Your task to perform on an android device: Show the shopping cart on amazon.com. Add sony triple a to the cart on amazon.com Image 0: 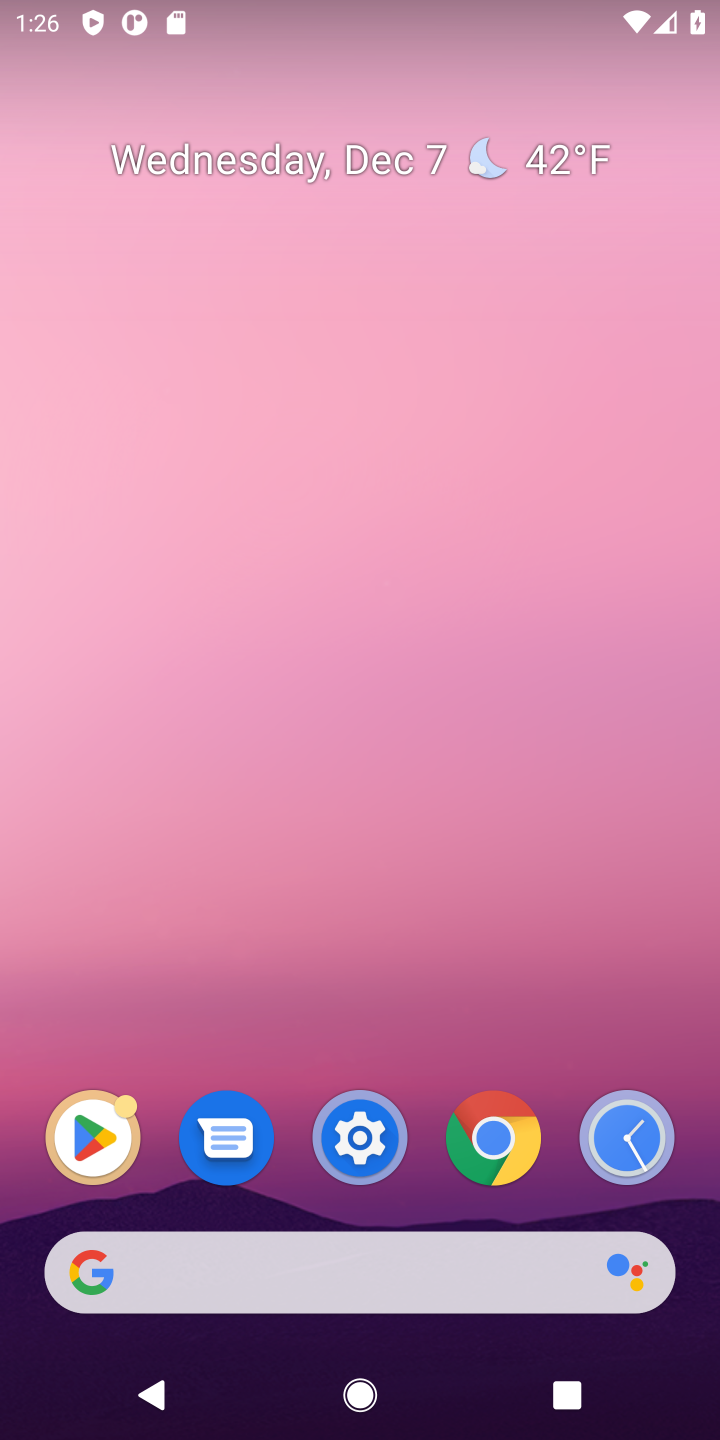
Step 0: click (452, 1279)
Your task to perform on an android device: Show the shopping cart on amazon.com. Add sony triple a to the cart on amazon.com Image 1: 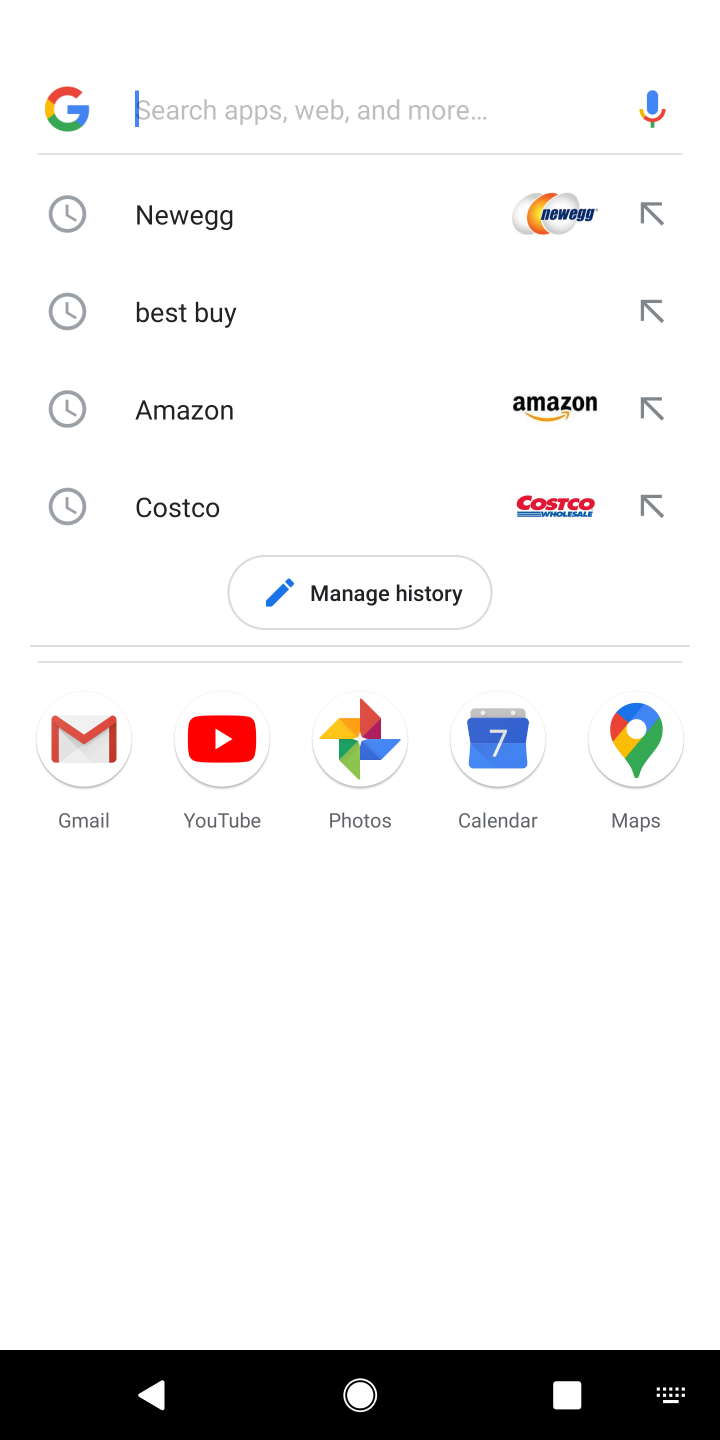
Step 1: click (279, 427)
Your task to perform on an android device: Show the shopping cart on amazon.com. Add sony triple a to the cart on amazon.com Image 2: 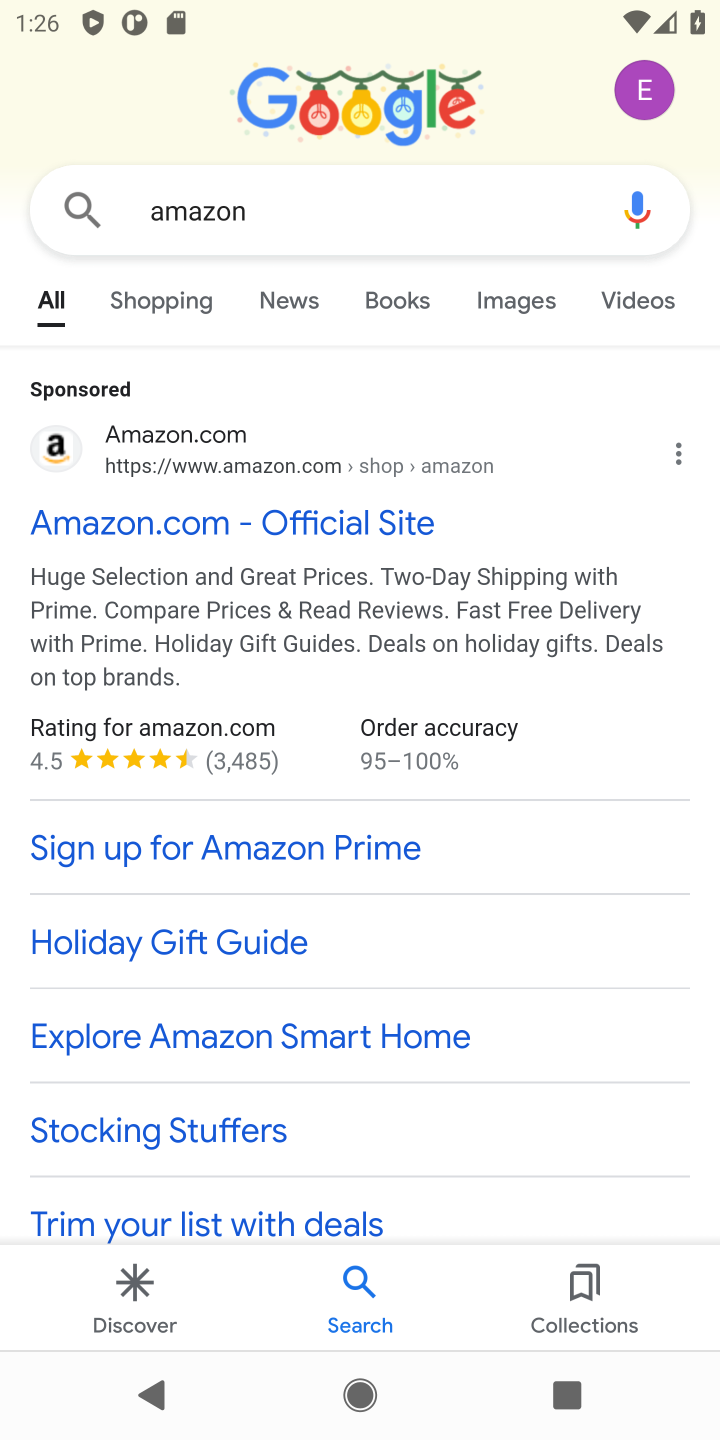
Step 2: click (183, 506)
Your task to perform on an android device: Show the shopping cart on amazon.com. Add sony triple a to the cart on amazon.com Image 3: 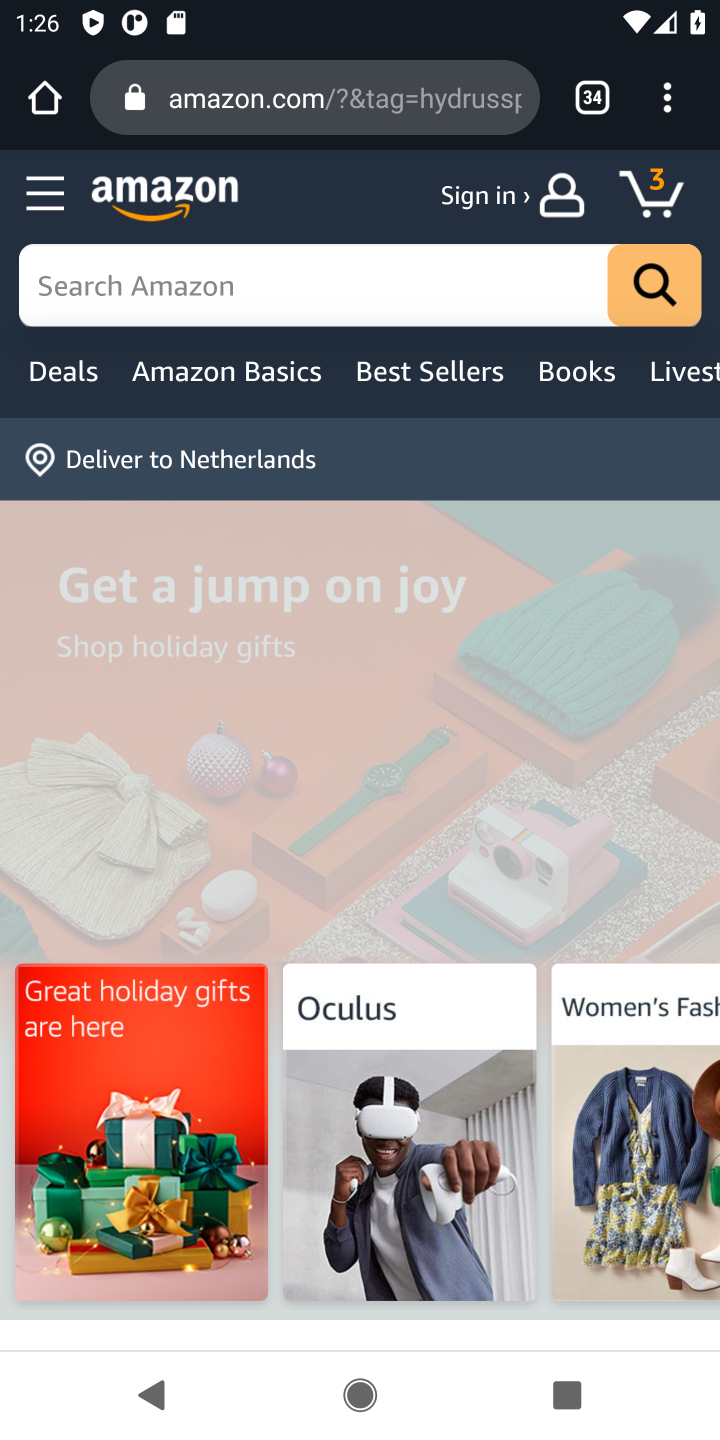
Step 3: click (306, 285)
Your task to perform on an android device: Show the shopping cart on amazon.com. Add sony triple a to the cart on amazon.com Image 4: 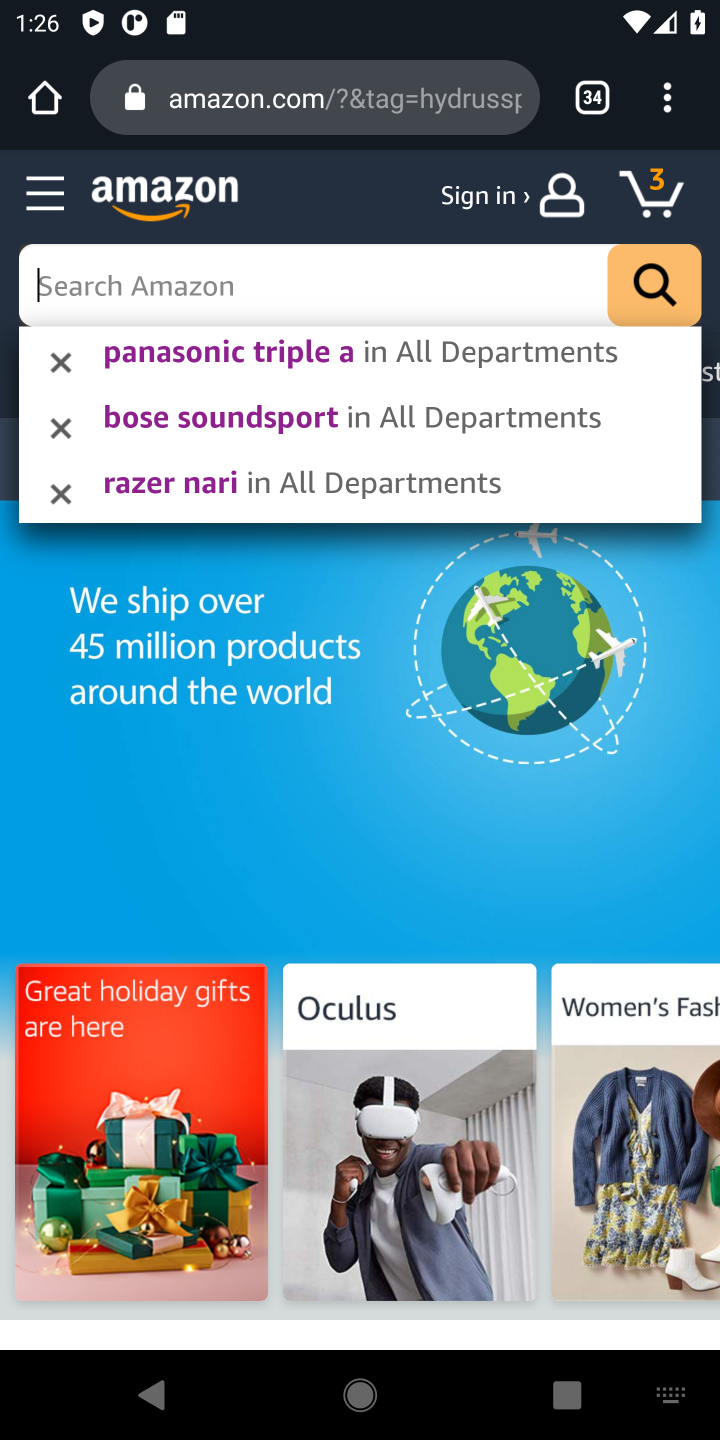
Step 4: type "sony triple"
Your task to perform on an android device: Show the shopping cart on amazon.com. Add sony triple a to the cart on amazon.com Image 5: 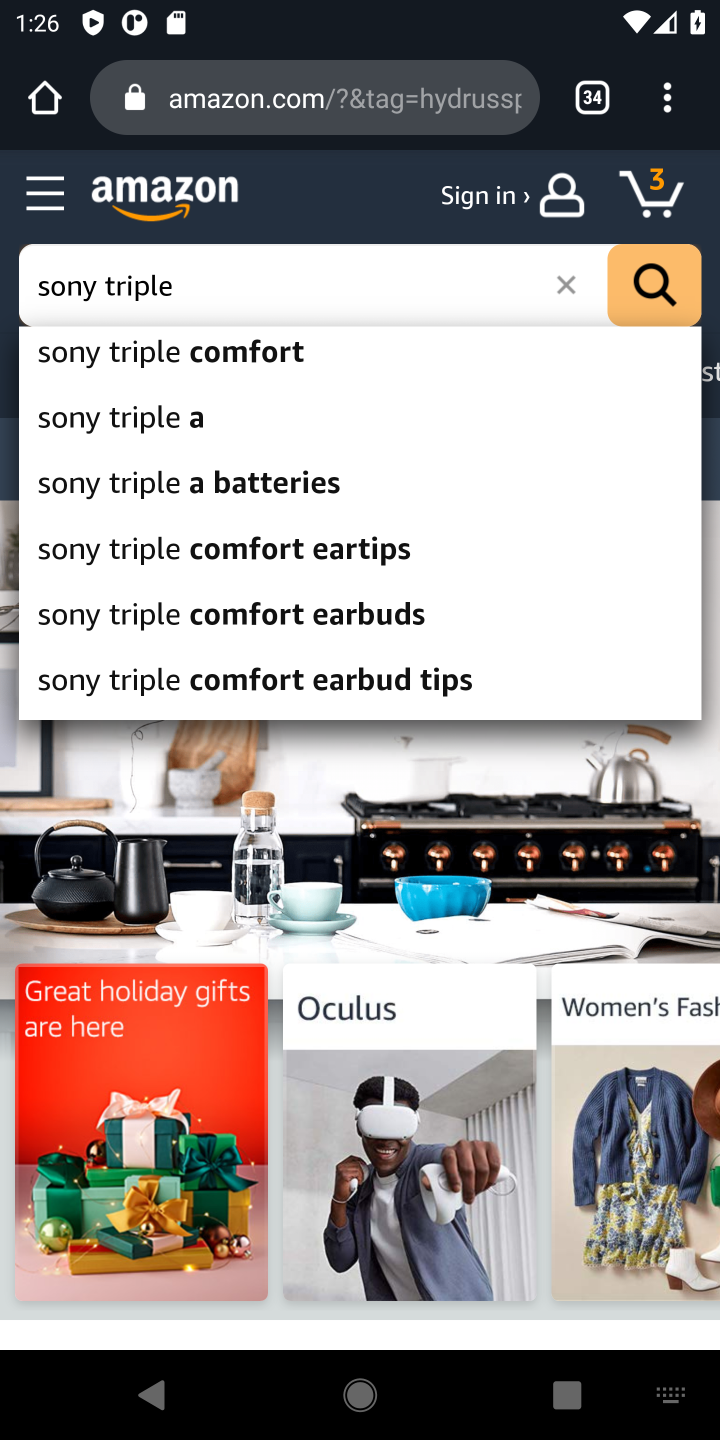
Step 5: click (173, 410)
Your task to perform on an android device: Show the shopping cart on amazon.com. Add sony triple a to the cart on amazon.com Image 6: 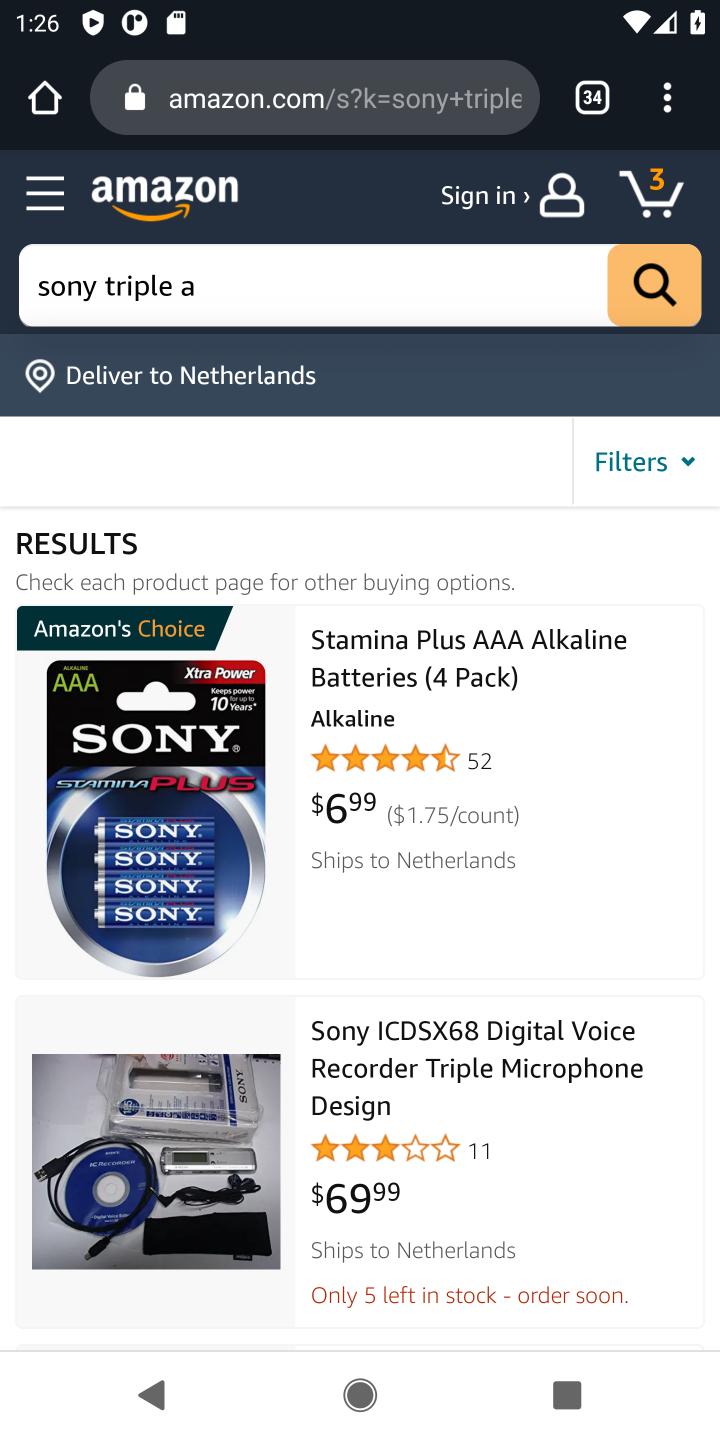
Step 6: click (202, 845)
Your task to perform on an android device: Show the shopping cart on amazon.com. Add sony triple a to the cart on amazon.com Image 7: 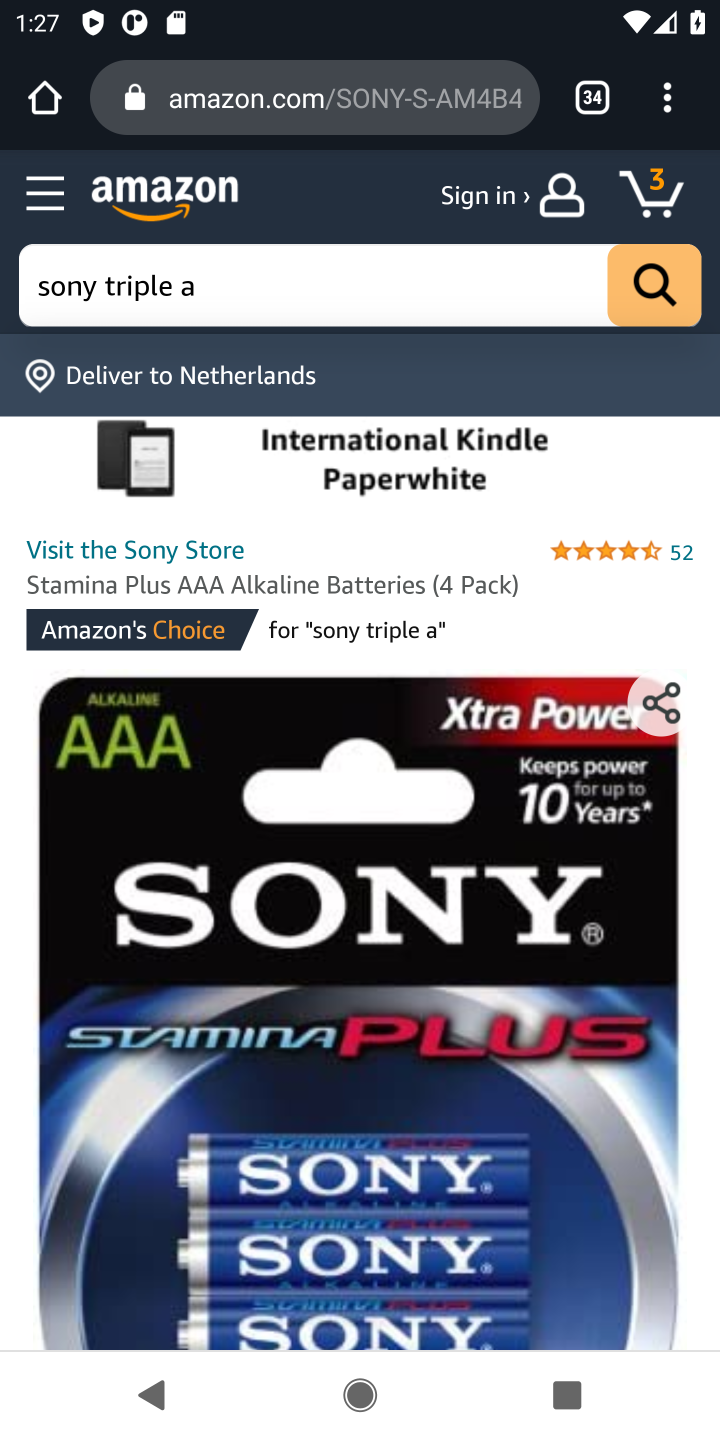
Step 7: task complete